Your task to perform on an android device: toggle javascript in the chrome app Image 0: 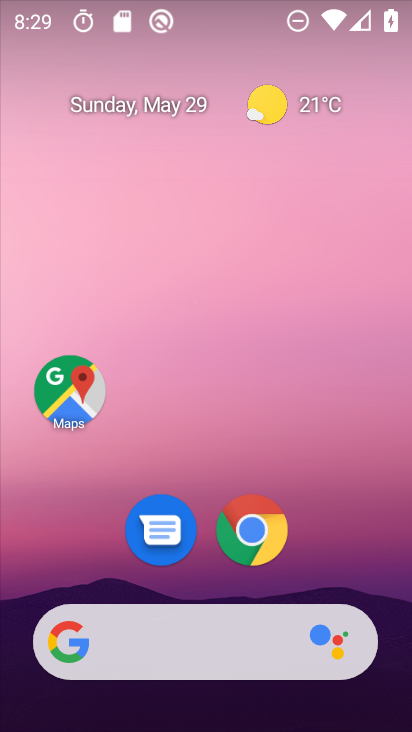
Step 0: drag from (245, 615) to (339, 219)
Your task to perform on an android device: toggle javascript in the chrome app Image 1: 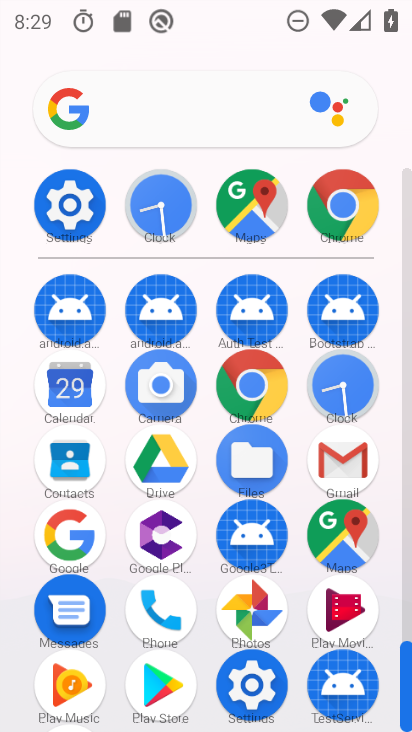
Step 1: click (335, 207)
Your task to perform on an android device: toggle javascript in the chrome app Image 2: 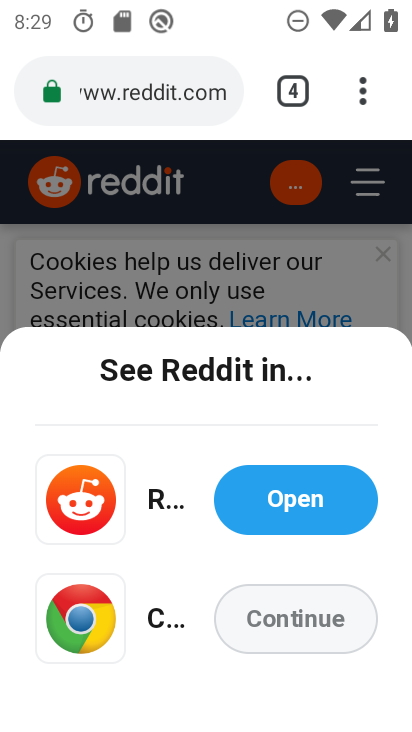
Step 2: click (352, 95)
Your task to perform on an android device: toggle javascript in the chrome app Image 3: 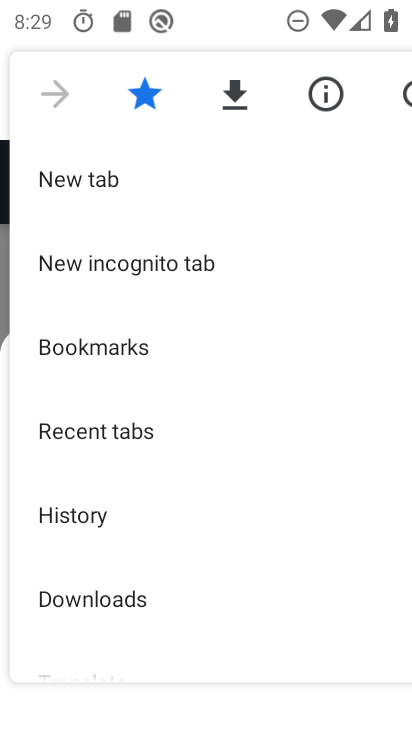
Step 3: drag from (122, 592) to (147, 391)
Your task to perform on an android device: toggle javascript in the chrome app Image 4: 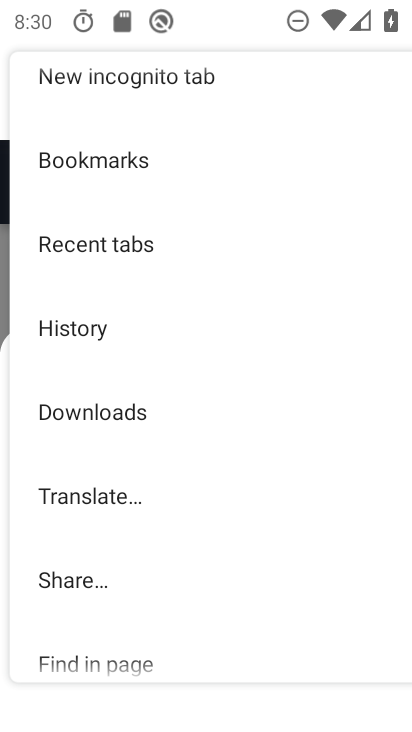
Step 4: drag from (110, 618) to (175, 306)
Your task to perform on an android device: toggle javascript in the chrome app Image 5: 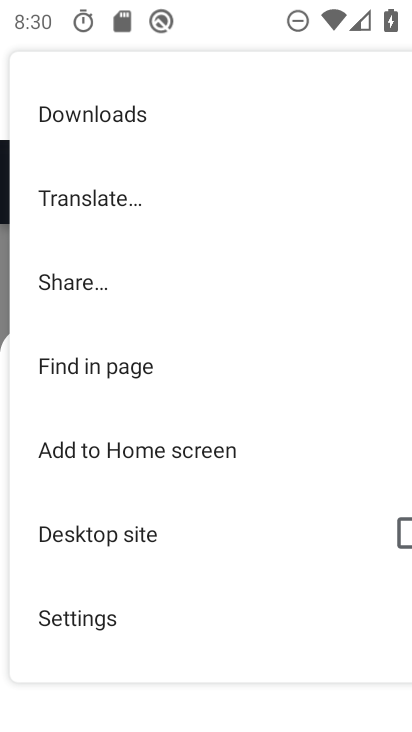
Step 5: click (99, 618)
Your task to perform on an android device: toggle javascript in the chrome app Image 6: 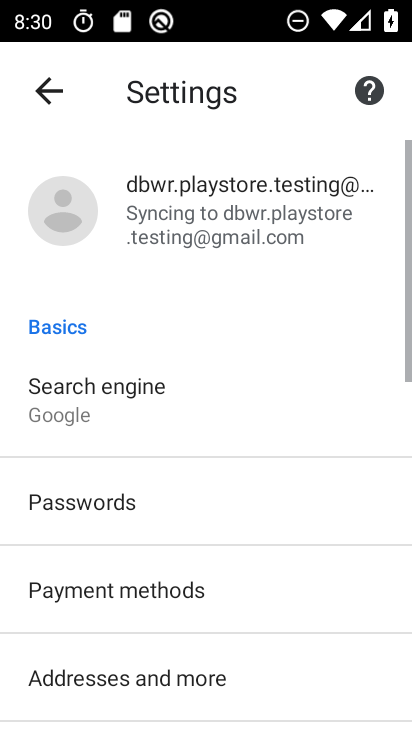
Step 6: drag from (139, 596) to (193, 296)
Your task to perform on an android device: toggle javascript in the chrome app Image 7: 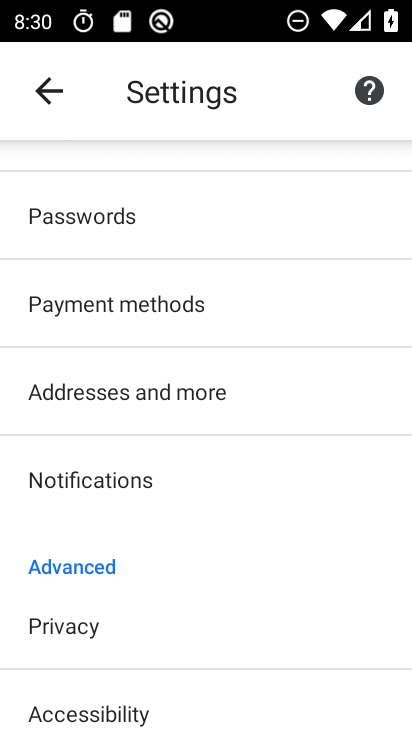
Step 7: drag from (116, 628) to (182, 270)
Your task to perform on an android device: toggle javascript in the chrome app Image 8: 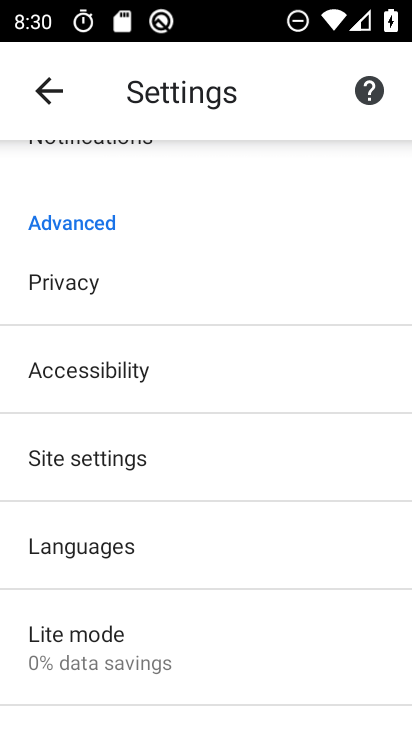
Step 8: drag from (129, 589) to (150, 397)
Your task to perform on an android device: toggle javascript in the chrome app Image 9: 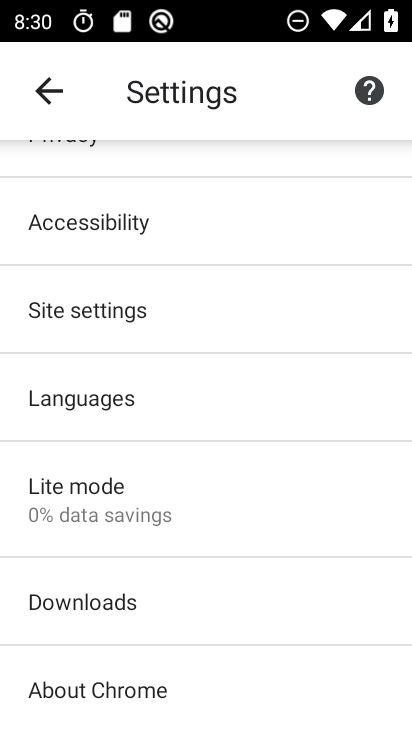
Step 9: click (82, 311)
Your task to perform on an android device: toggle javascript in the chrome app Image 10: 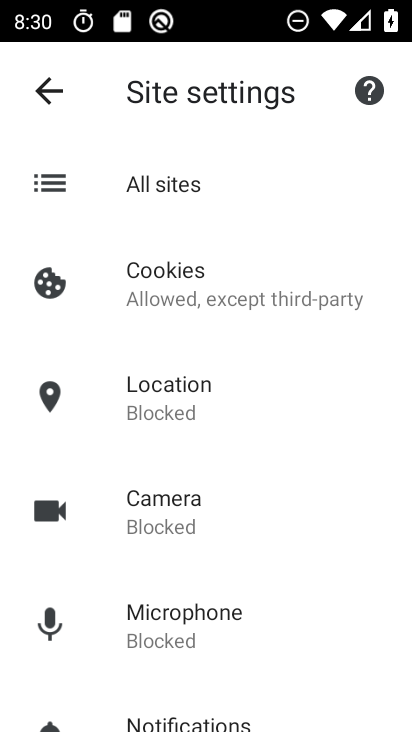
Step 10: drag from (161, 656) to (194, 320)
Your task to perform on an android device: toggle javascript in the chrome app Image 11: 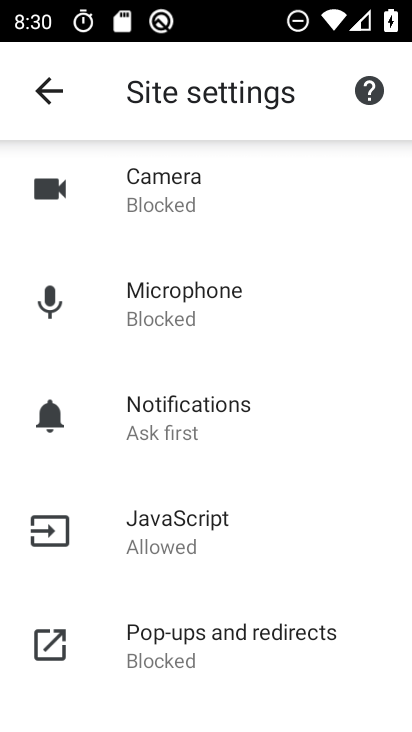
Step 11: click (159, 504)
Your task to perform on an android device: toggle javascript in the chrome app Image 12: 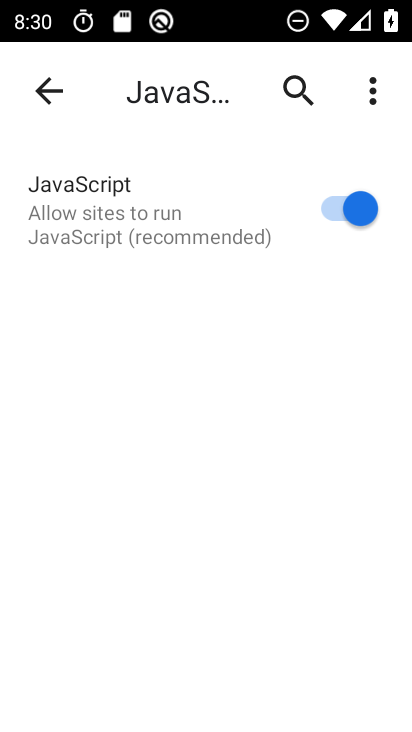
Step 12: task complete